Your task to perform on an android device: Show me popular videos on Youtube Image 0: 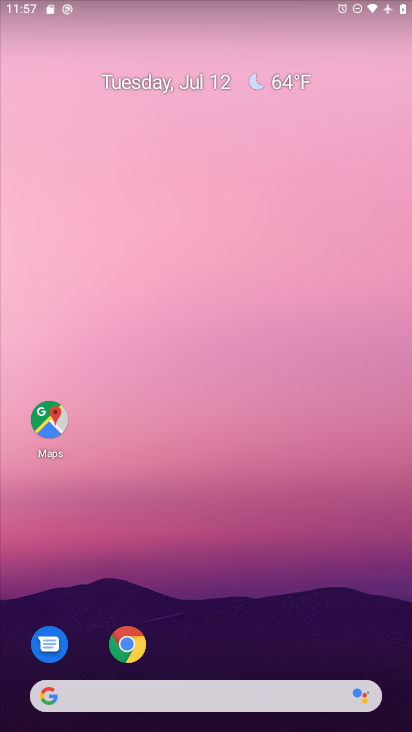
Step 0: drag from (256, 638) to (243, 215)
Your task to perform on an android device: Show me popular videos on Youtube Image 1: 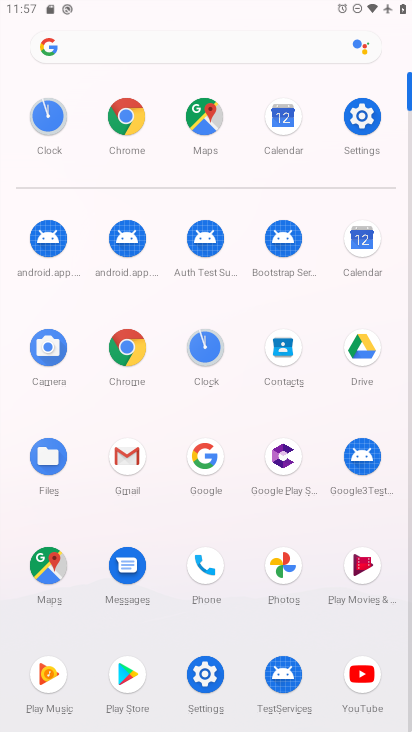
Step 1: click (351, 664)
Your task to perform on an android device: Show me popular videos on Youtube Image 2: 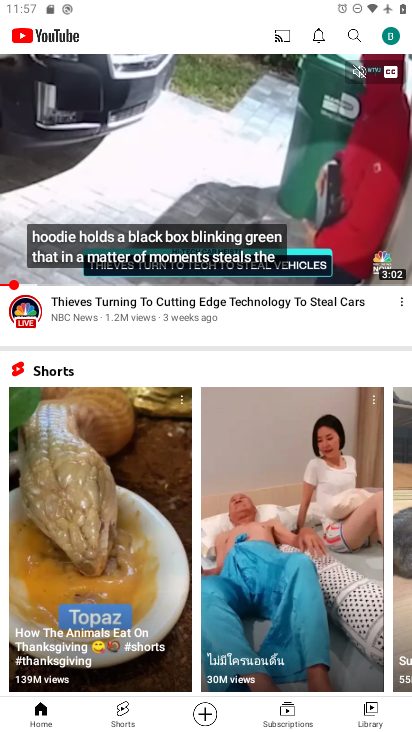
Step 2: task complete